Your task to perform on an android device: turn off smart reply in the gmail app Image 0: 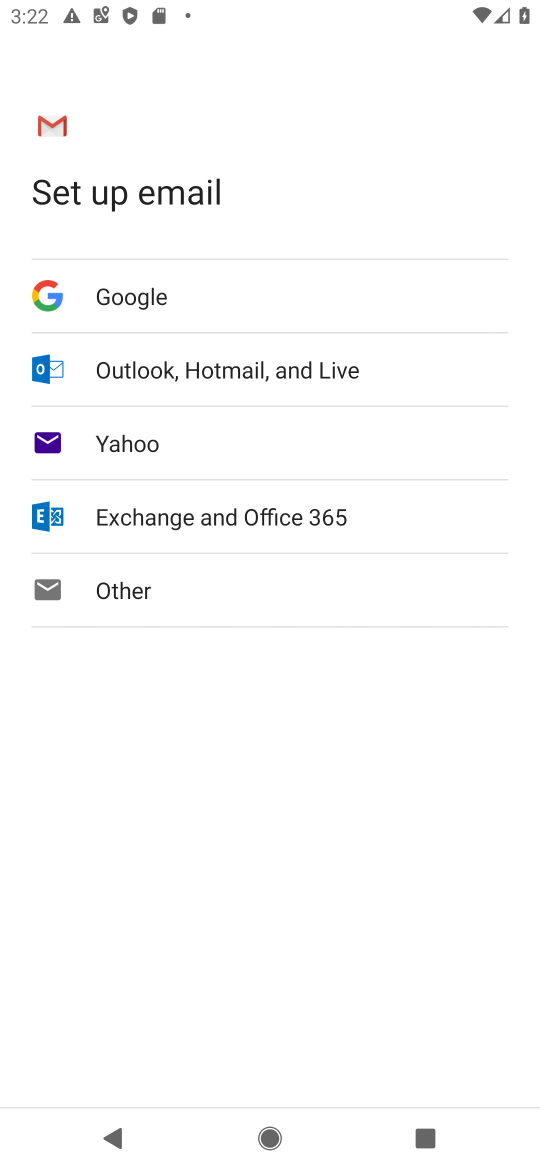
Step 0: press home button
Your task to perform on an android device: turn off smart reply in the gmail app Image 1: 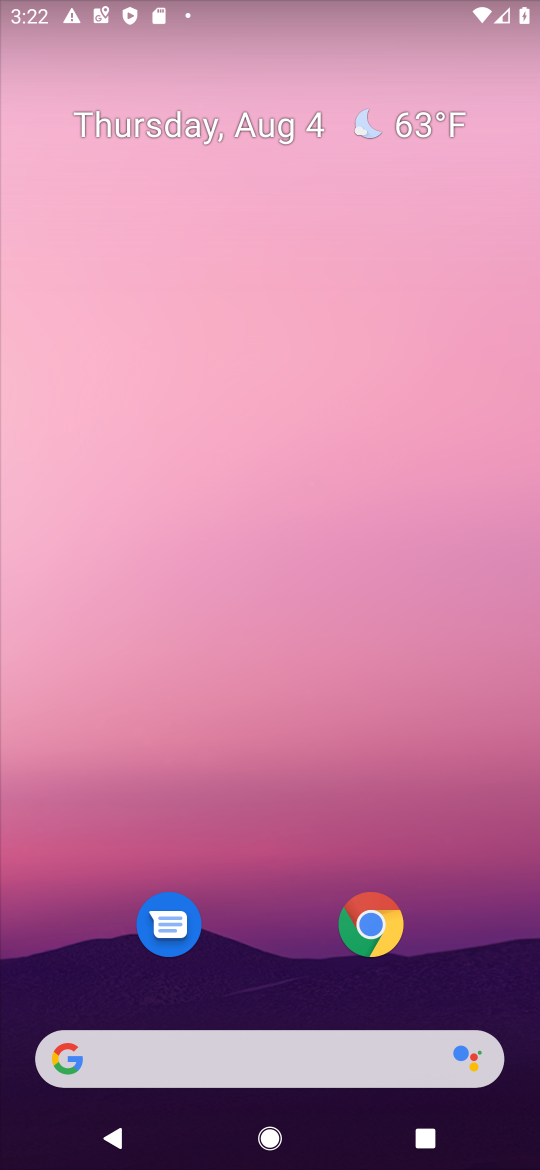
Step 1: drag from (263, 935) to (172, 339)
Your task to perform on an android device: turn off smart reply in the gmail app Image 2: 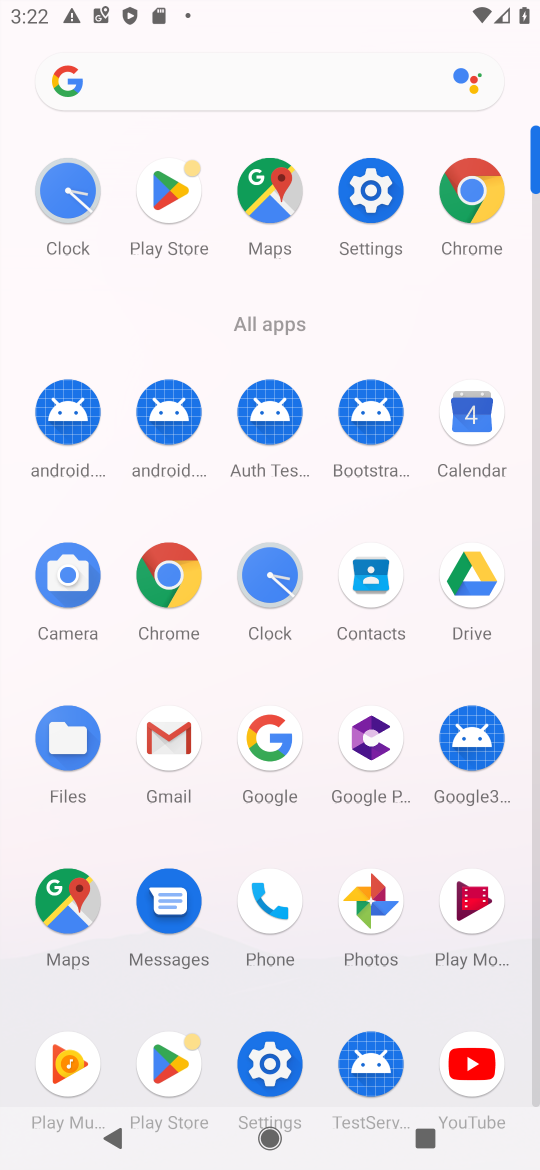
Step 2: click (173, 737)
Your task to perform on an android device: turn off smart reply in the gmail app Image 3: 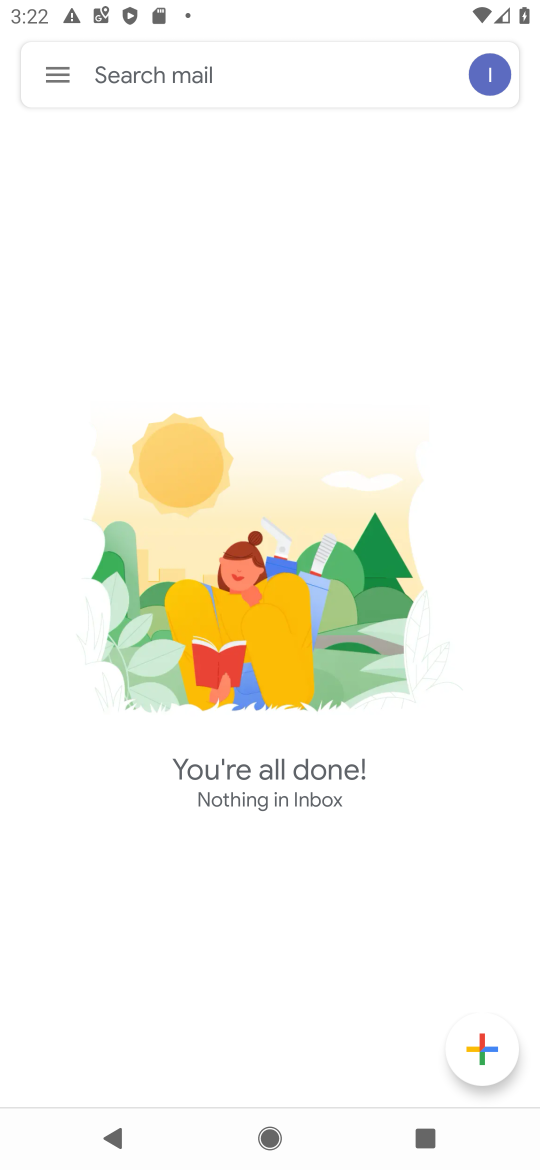
Step 3: click (53, 73)
Your task to perform on an android device: turn off smart reply in the gmail app Image 4: 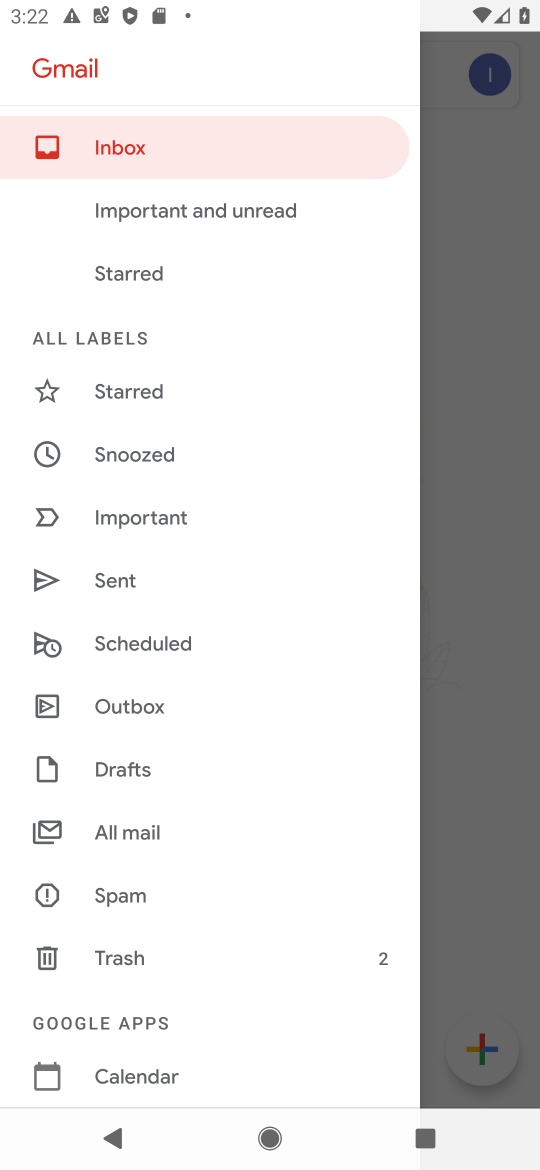
Step 4: drag from (241, 1011) to (128, 378)
Your task to perform on an android device: turn off smart reply in the gmail app Image 5: 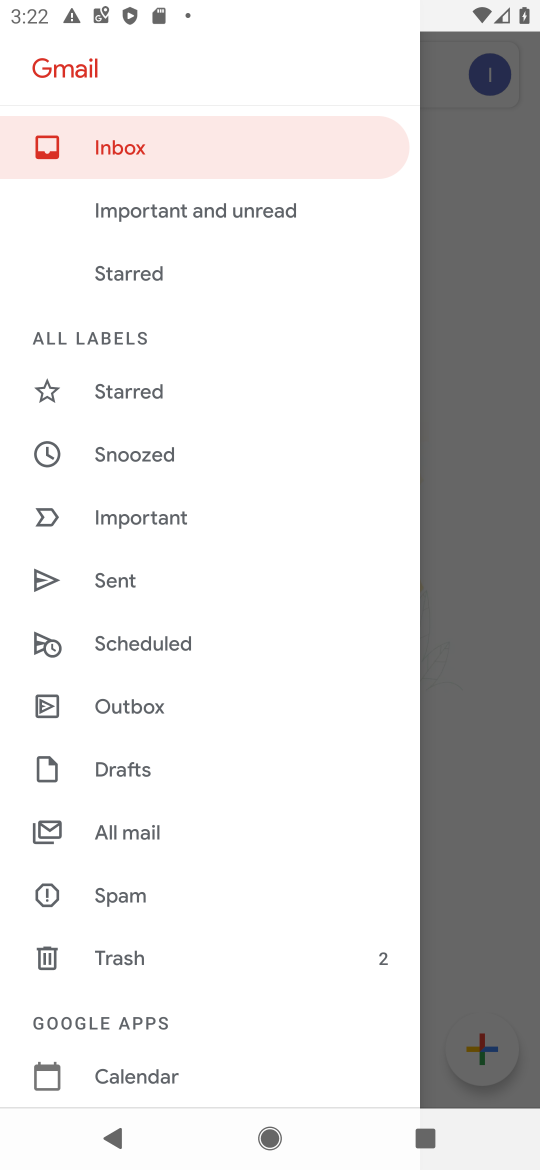
Step 5: drag from (257, 958) to (267, 408)
Your task to perform on an android device: turn off smart reply in the gmail app Image 6: 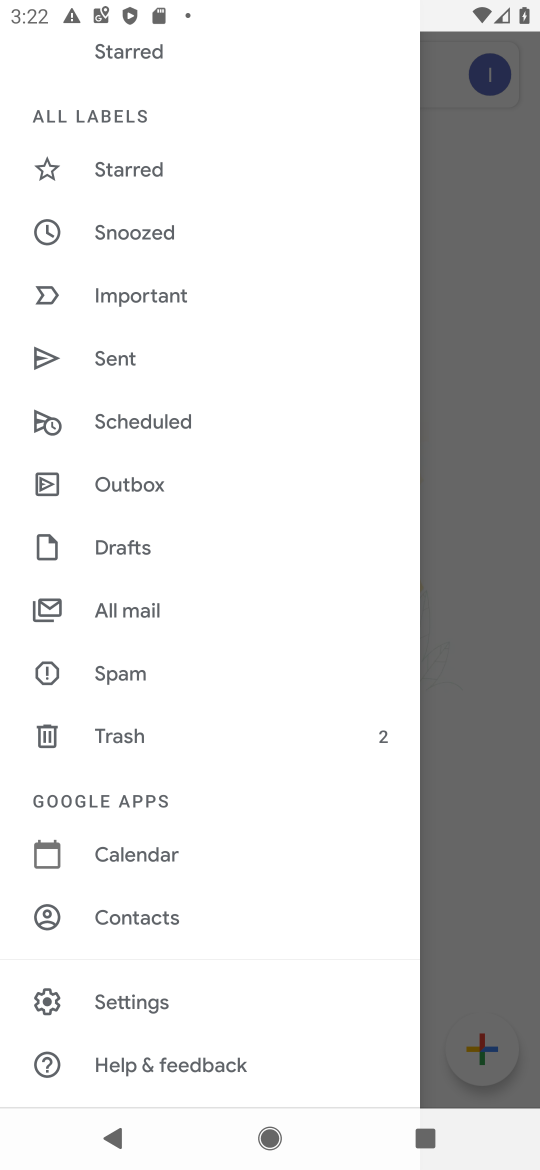
Step 6: click (148, 1002)
Your task to perform on an android device: turn off smart reply in the gmail app Image 7: 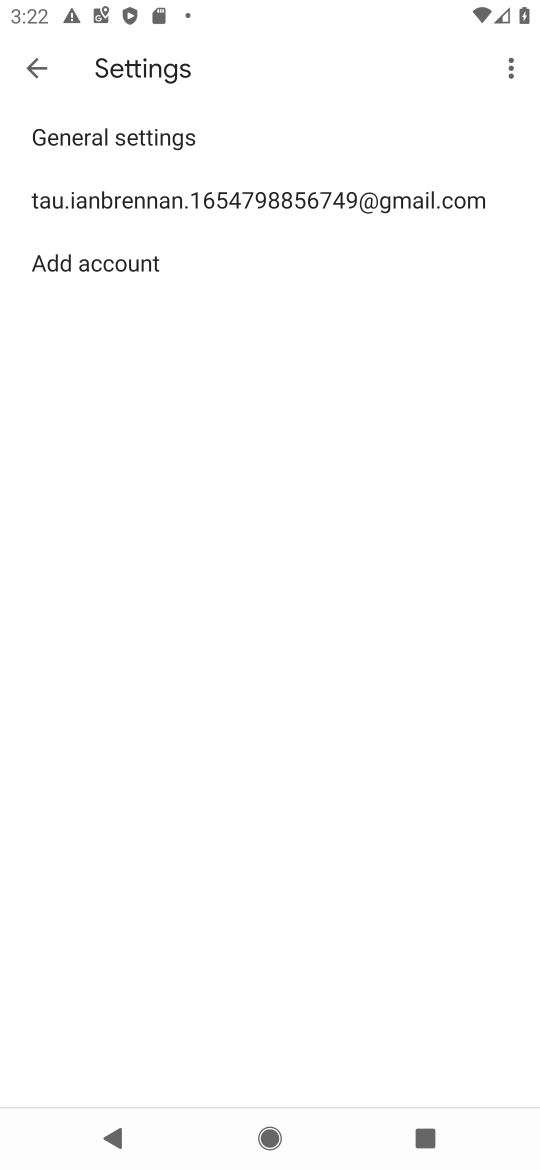
Step 7: click (128, 193)
Your task to perform on an android device: turn off smart reply in the gmail app Image 8: 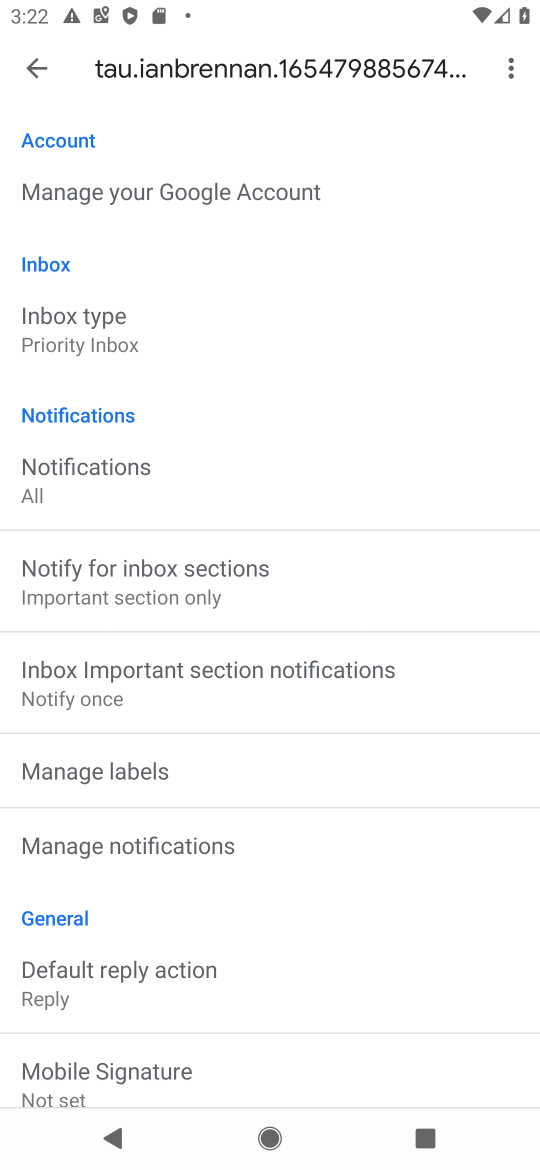
Step 8: drag from (259, 954) to (211, 371)
Your task to perform on an android device: turn off smart reply in the gmail app Image 9: 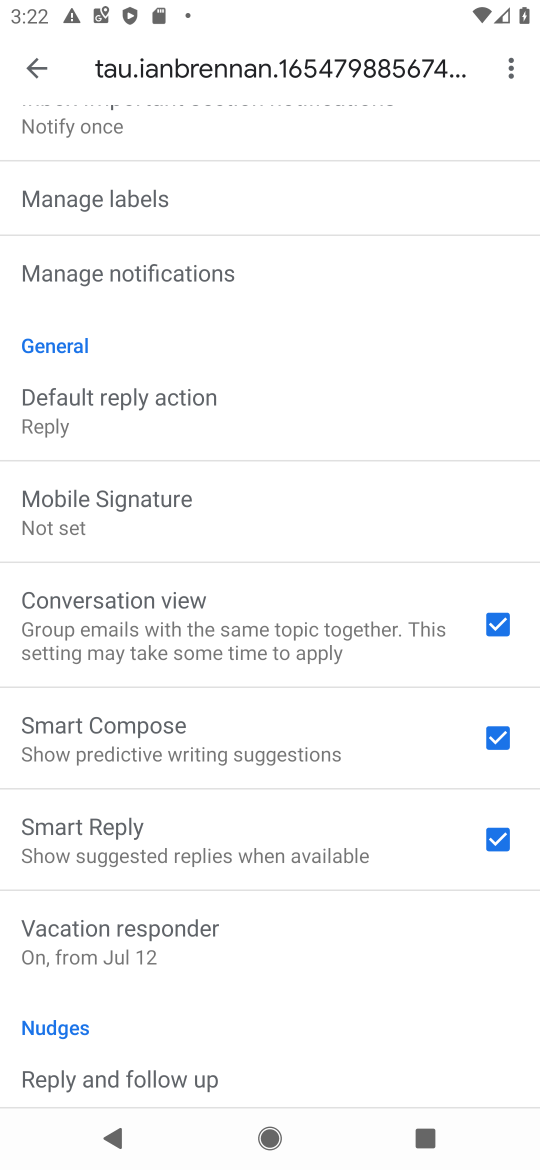
Step 9: click (491, 835)
Your task to perform on an android device: turn off smart reply in the gmail app Image 10: 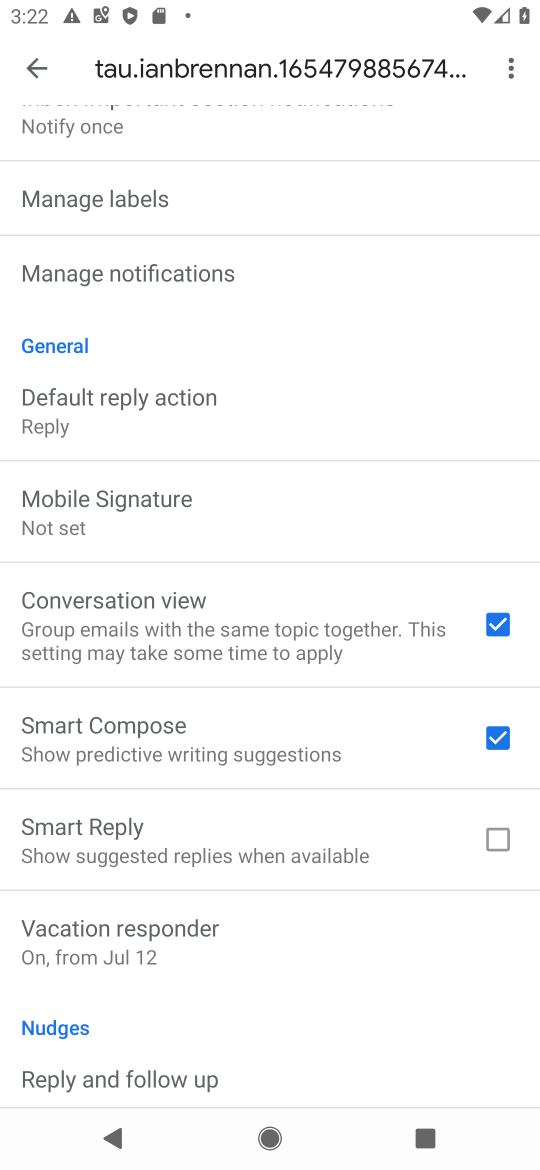
Step 10: task complete